Your task to perform on an android device: turn off sleep mode Image 0: 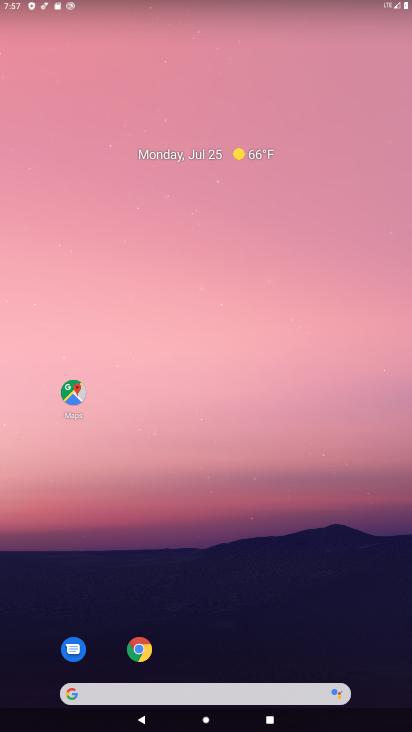
Step 0: drag from (297, 641) to (235, 199)
Your task to perform on an android device: turn off sleep mode Image 1: 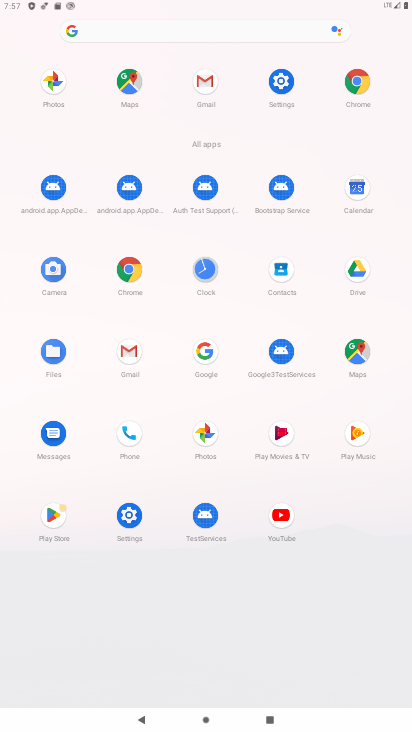
Step 1: click (272, 84)
Your task to perform on an android device: turn off sleep mode Image 2: 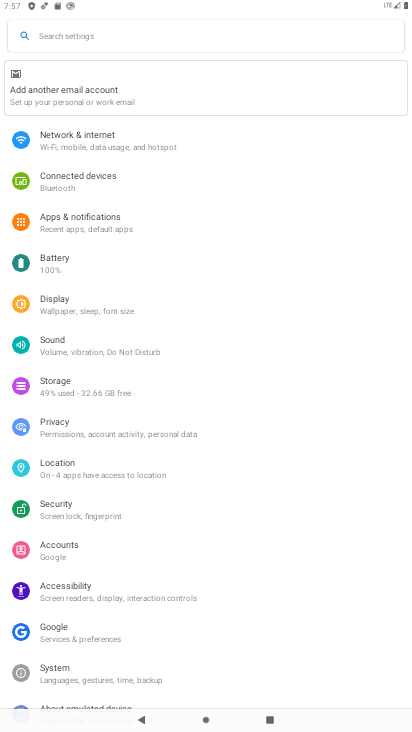
Step 2: click (94, 304)
Your task to perform on an android device: turn off sleep mode Image 3: 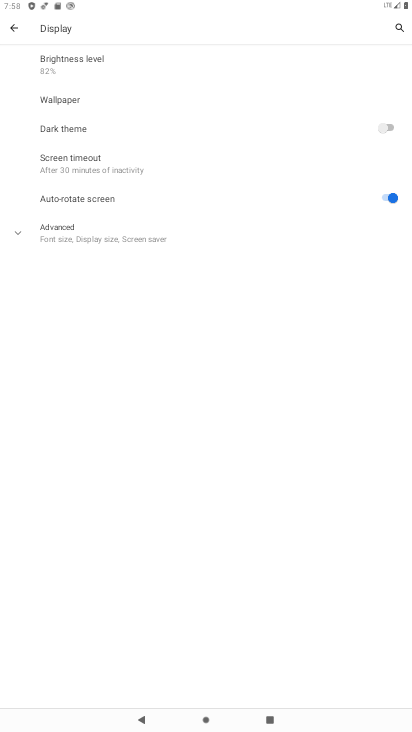
Step 3: click (144, 235)
Your task to perform on an android device: turn off sleep mode Image 4: 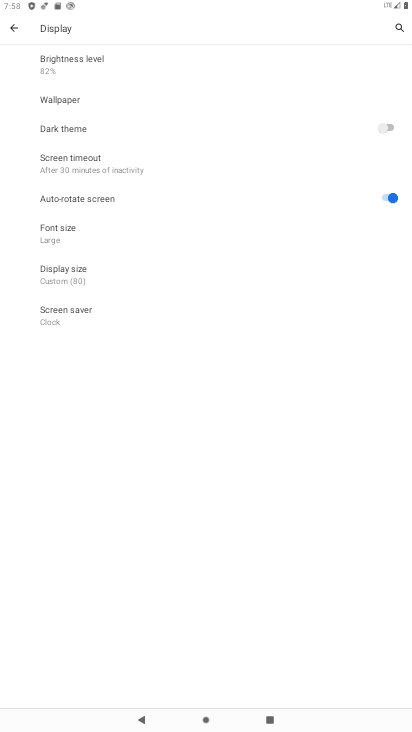
Step 4: task complete